Your task to perform on an android device: Open the settings Image 0: 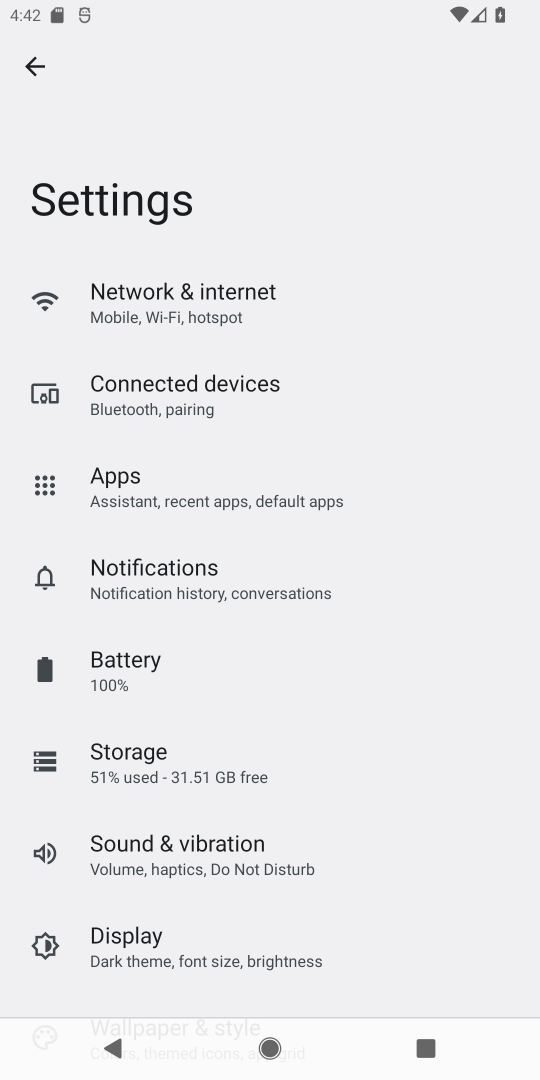
Step 0: press home button
Your task to perform on an android device: Open the settings Image 1: 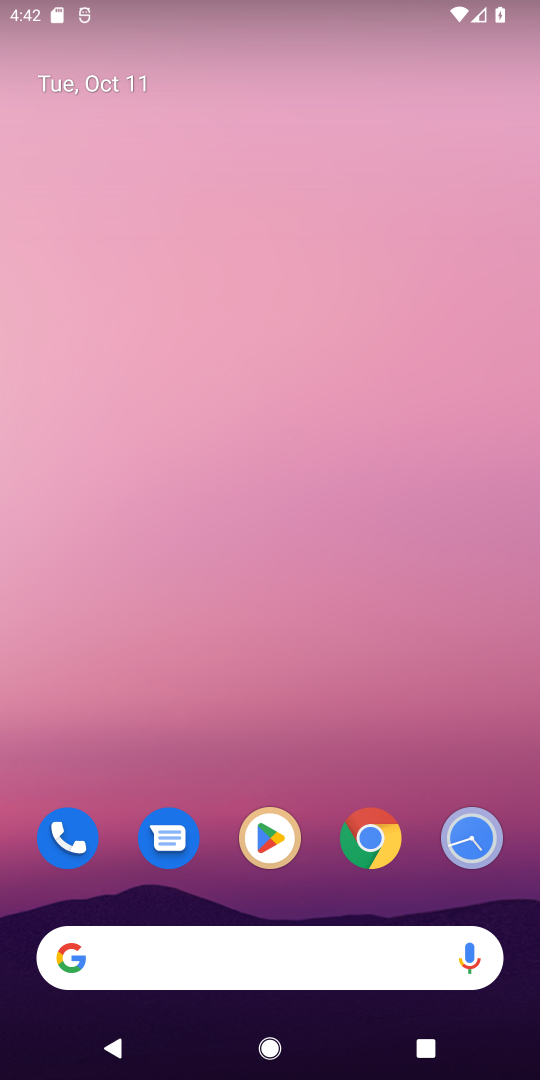
Step 1: click (365, 840)
Your task to perform on an android device: Open the settings Image 2: 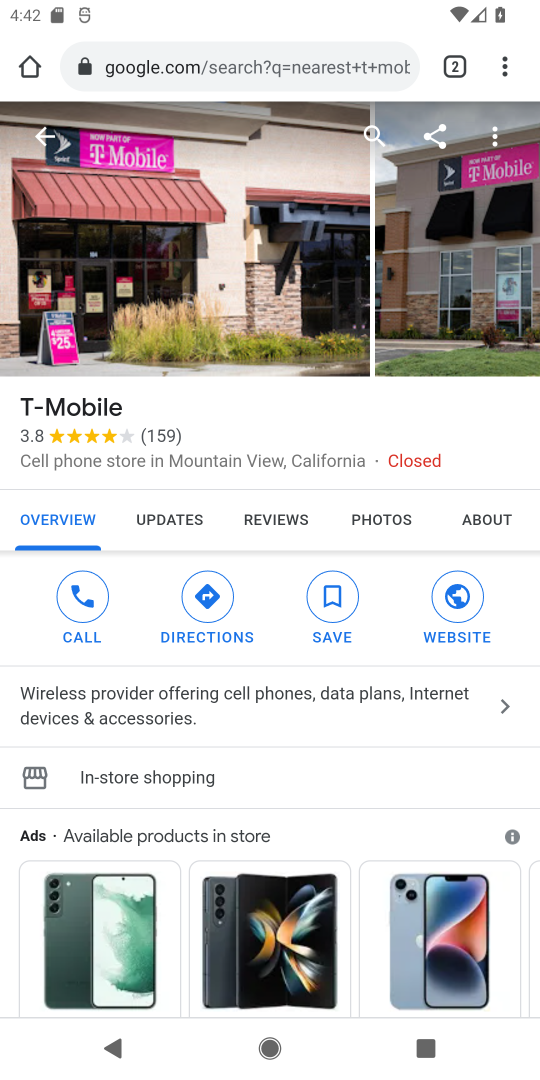
Step 2: click (153, 65)
Your task to perform on an android device: Open the settings Image 3: 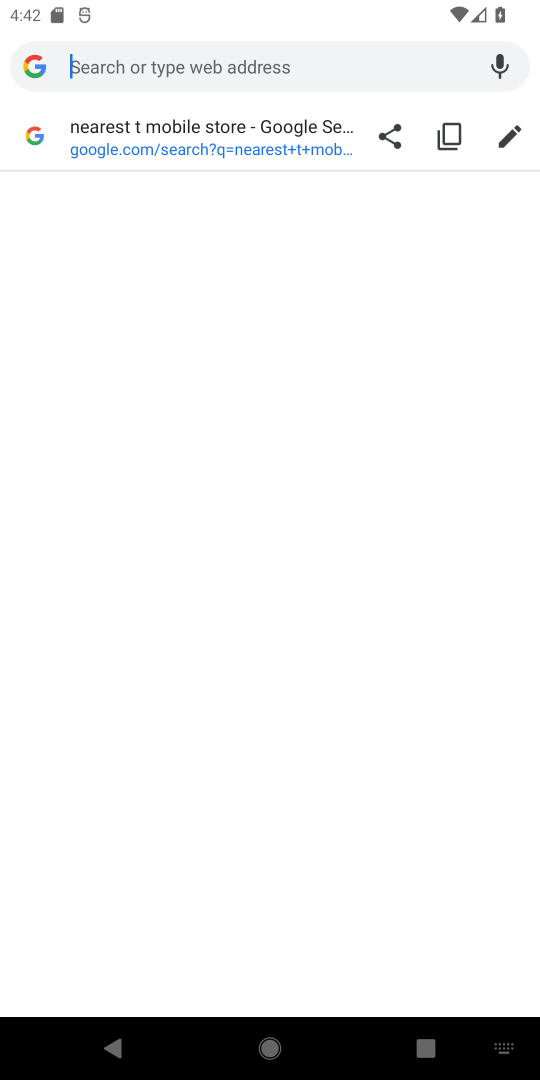
Step 3: press home button
Your task to perform on an android device: Open the settings Image 4: 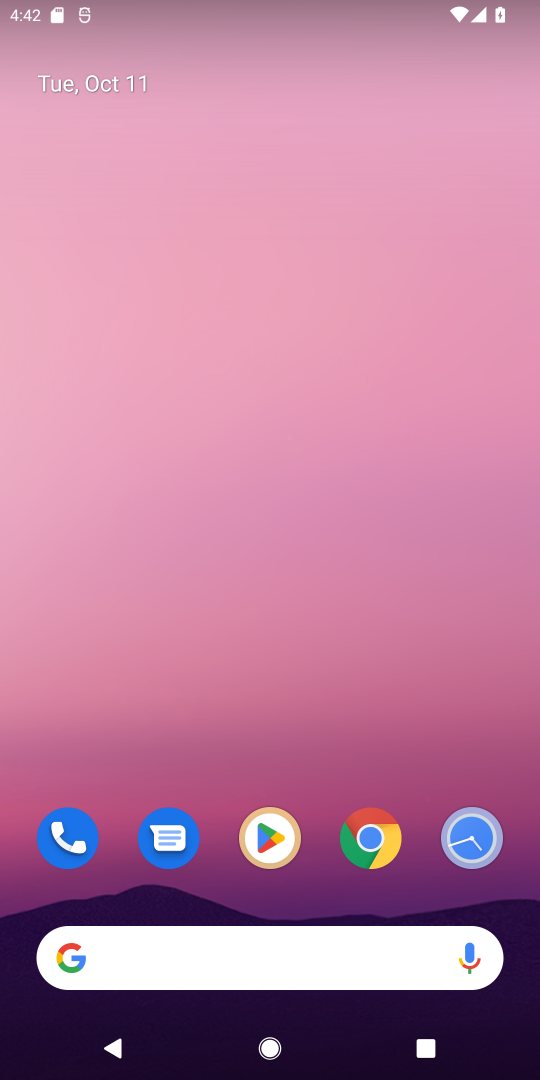
Step 4: drag from (287, 559) to (332, 271)
Your task to perform on an android device: Open the settings Image 5: 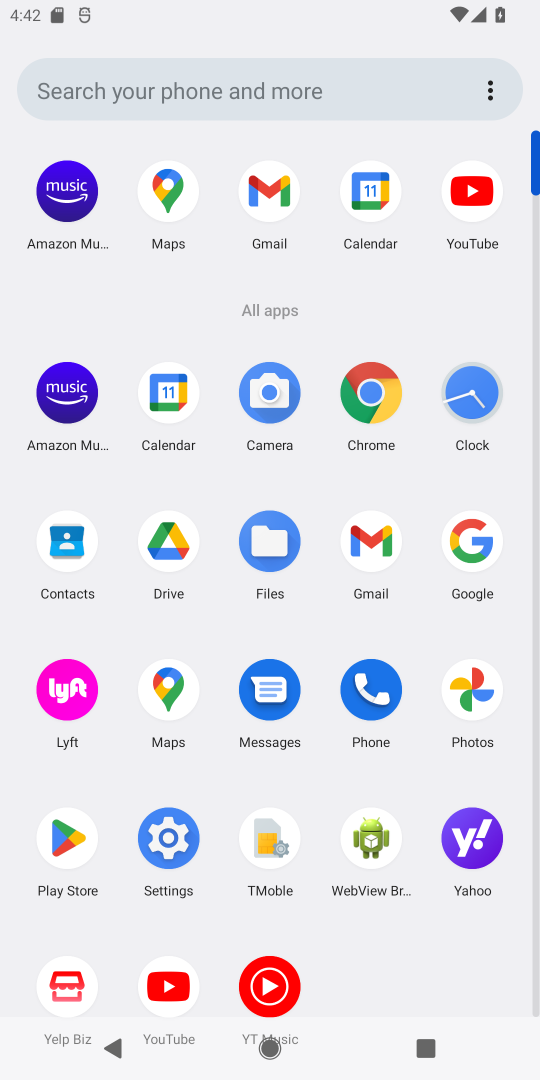
Step 5: click (160, 834)
Your task to perform on an android device: Open the settings Image 6: 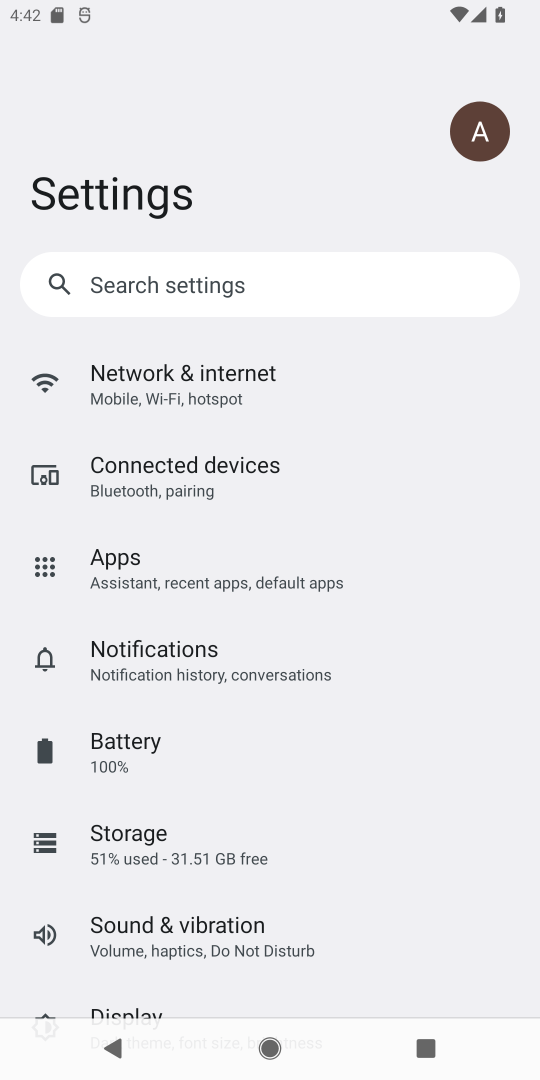
Step 6: task complete